Your task to perform on an android device: Search for Mexican restaurants on Maps Image 0: 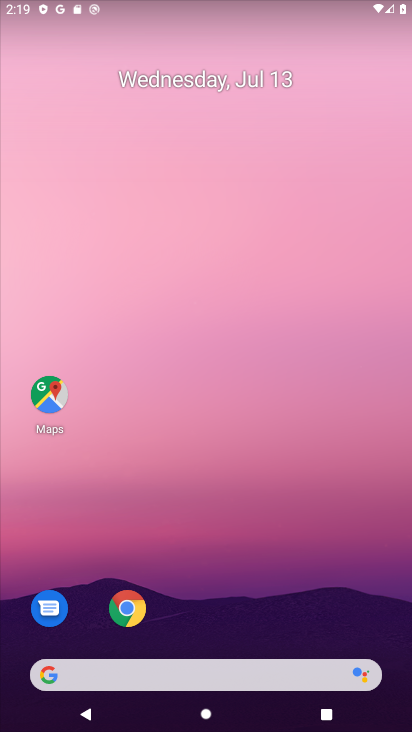
Step 0: drag from (253, 685) to (207, 219)
Your task to perform on an android device: Search for Mexican restaurants on Maps Image 1: 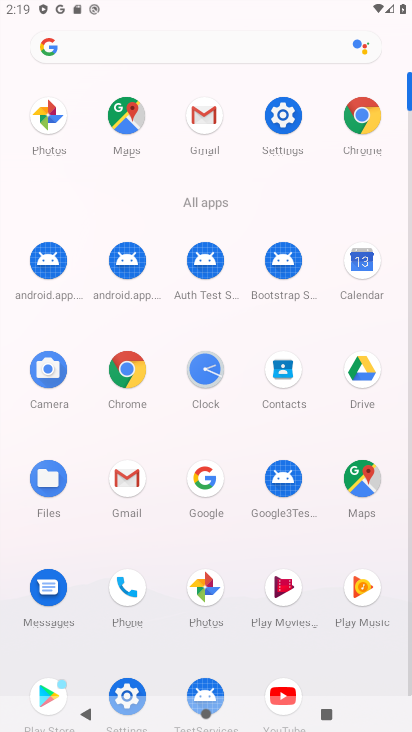
Step 1: click (364, 467)
Your task to perform on an android device: Search for Mexican restaurants on Maps Image 2: 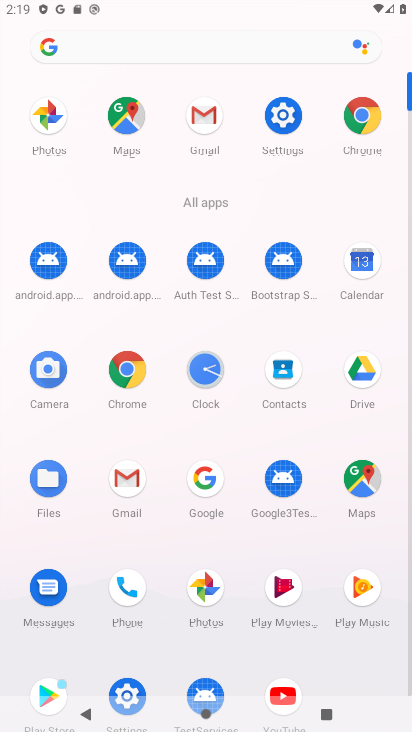
Step 2: click (364, 467)
Your task to perform on an android device: Search for Mexican restaurants on Maps Image 3: 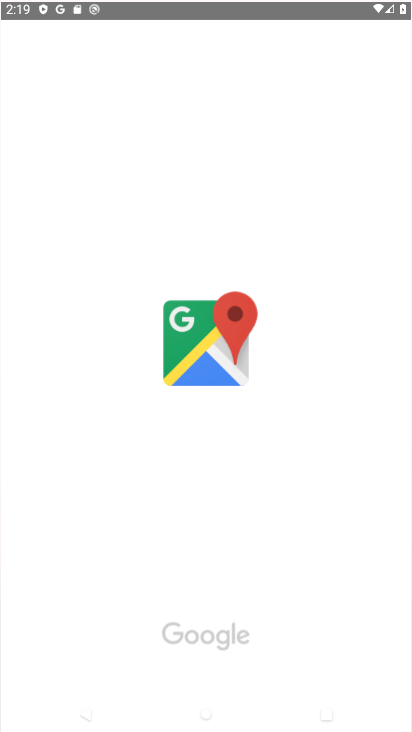
Step 3: click (364, 467)
Your task to perform on an android device: Search for Mexican restaurants on Maps Image 4: 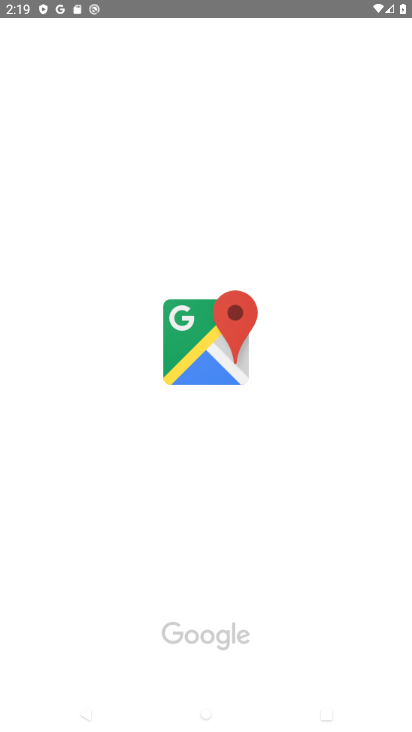
Step 4: click (364, 467)
Your task to perform on an android device: Search for Mexican restaurants on Maps Image 5: 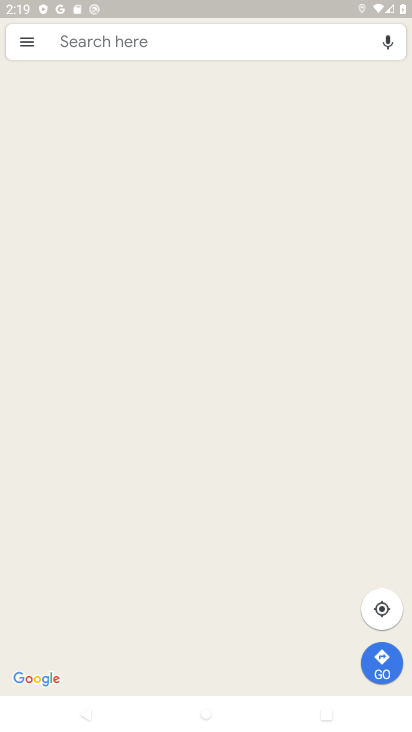
Step 5: click (77, 31)
Your task to perform on an android device: Search for Mexican restaurants on Maps Image 6: 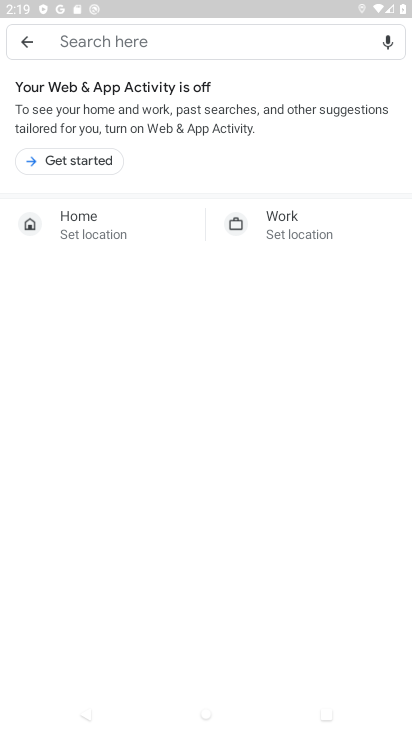
Step 6: click (81, 39)
Your task to perform on an android device: Search for Mexican restaurants on Maps Image 7: 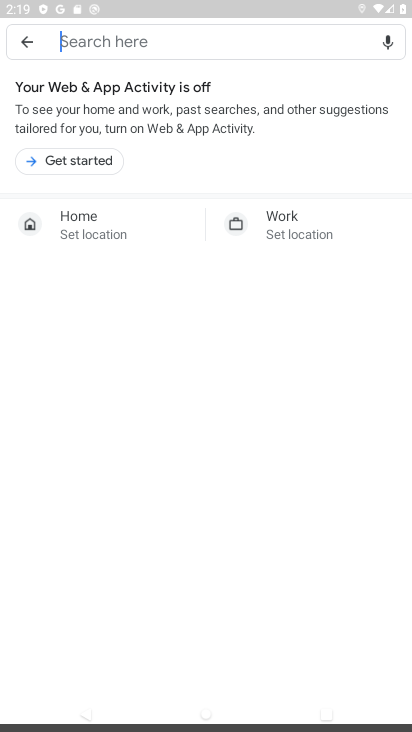
Step 7: click (82, 39)
Your task to perform on an android device: Search for Mexican restaurants on Maps Image 8: 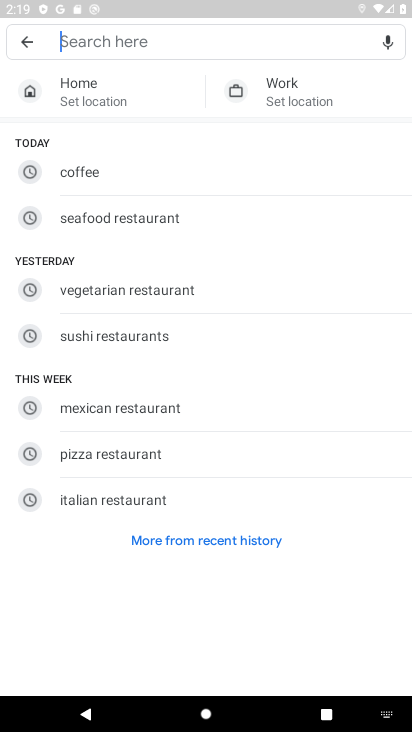
Step 8: type "mexican restaurants"
Your task to perform on an android device: Search for Mexican restaurants on Maps Image 9: 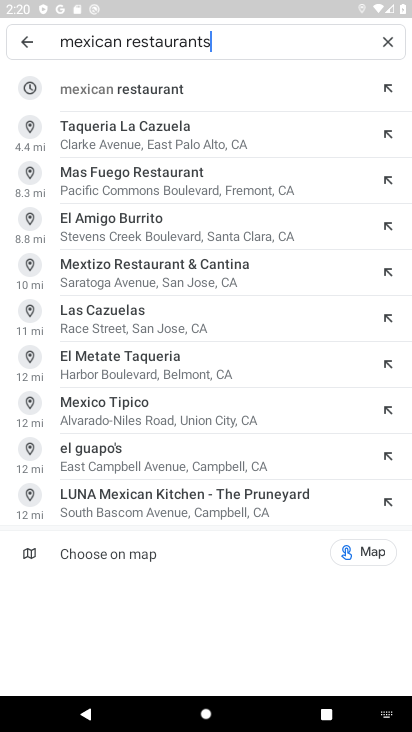
Step 9: click (120, 88)
Your task to perform on an android device: Search for Mexican restaurants on Maps Image 10: 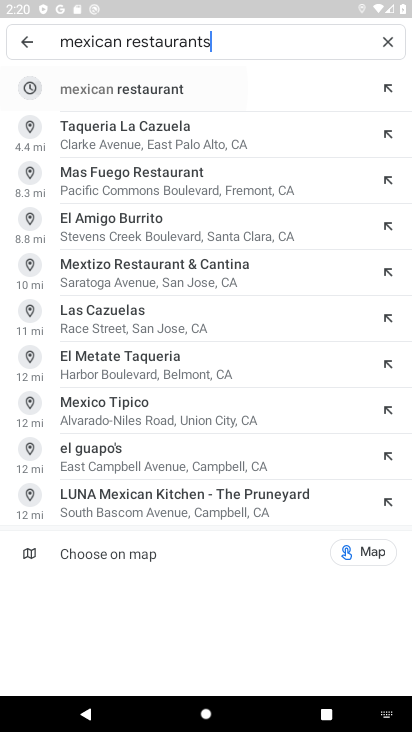
Step 10: click (123, 88)
Your task to perform on an android device: Search for Mexican restaurants on Maps Image 11: 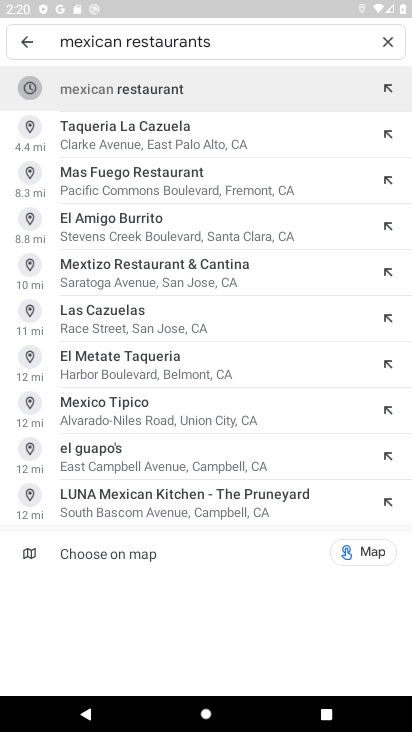
Step 11: click (123, 88)
Your task to perform on an android device: Search for Mexican restaurants on Maps Image 12: 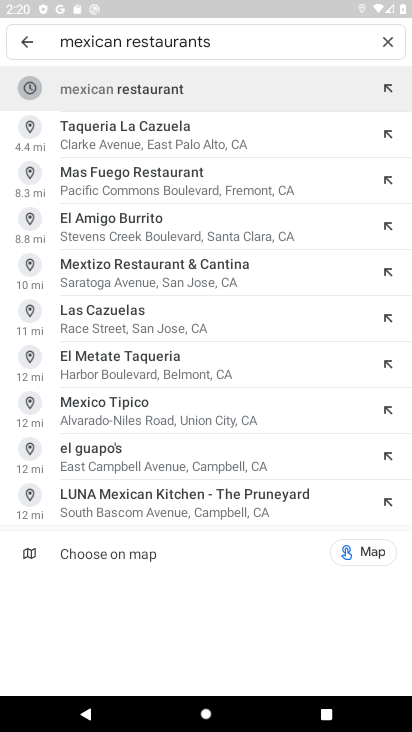
Step 12: click (124, 88)
Your task to perform on an android device: Search for Mexican restaurants on Maps Image 13: 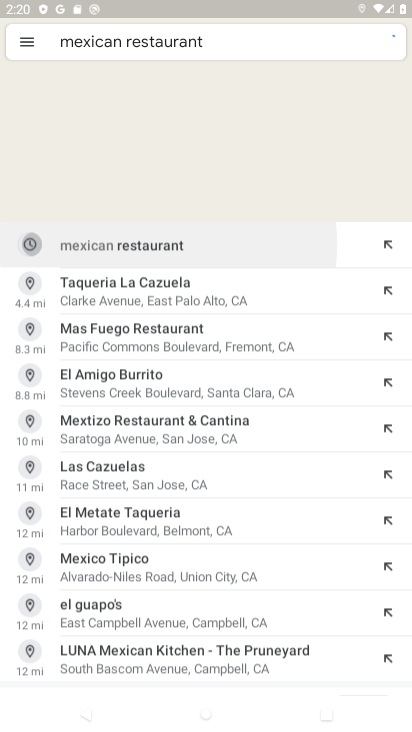
Step 13: click (125, 88)
Your task to perform on an android device: Search for Mexican restaurants on Maps Image 14: 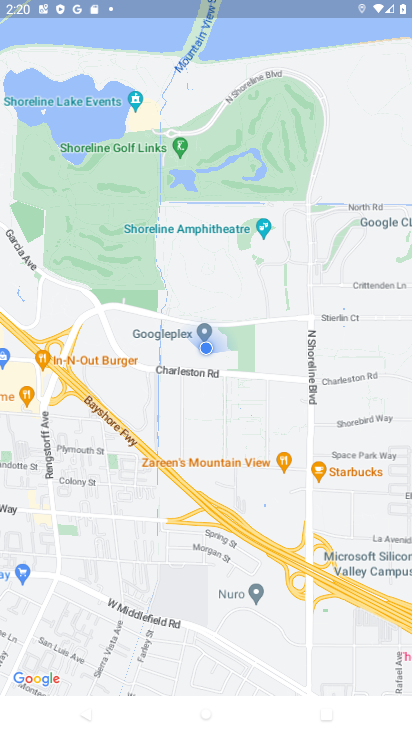
Step 14: task complete